Your task to perform on an android device: toggle show notifications on the lock screen Image 0: 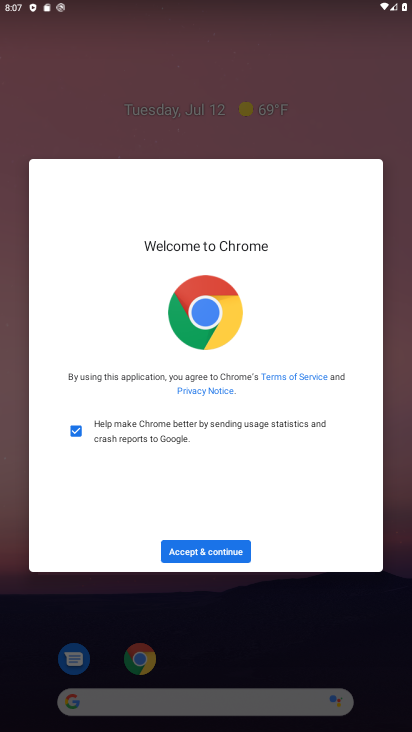
Step 0: press home button
Your task to perform on an android device: toggle show notifications on the lock screen Image 1: 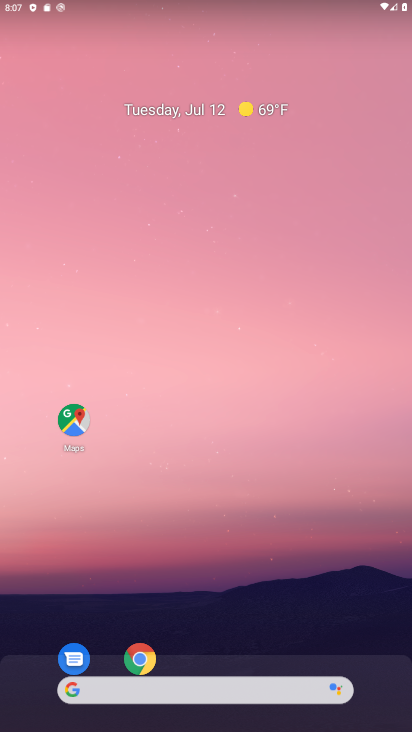
Step 1: drag from (331, 609) to (278, 280)
Your task to perform on an android device: toggle show notifications on the lock screen Image 2: 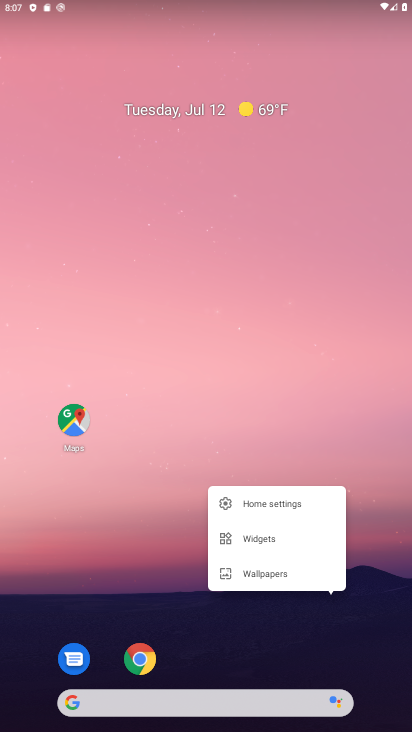
Step 2: drag from (400, 689) to (303, 52)
Your task to perform on an android device: toggle show notifications on the lock screen Image 3: 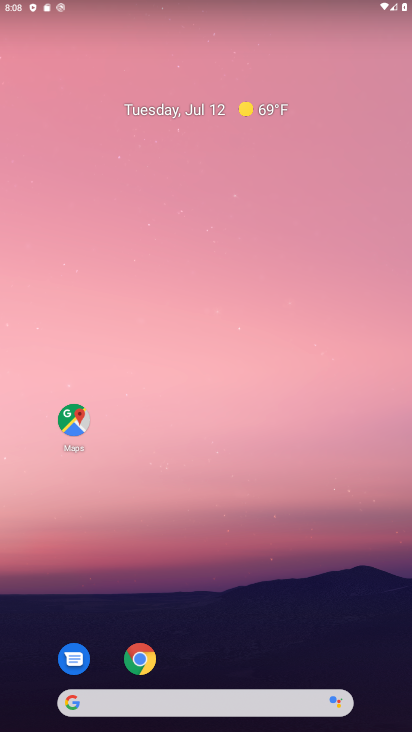
Step 3: drag from (394, 669) to (320, 163)
Your task to perform on an android device: toggle show notifications on the lock screen Image 4: 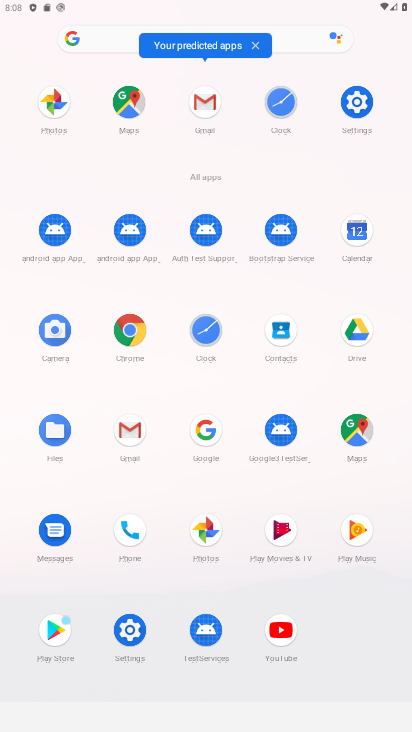
Step 4: click (356, 105)
Your task to perform on an android device: toggle show notifications on the lock screen Image 5: 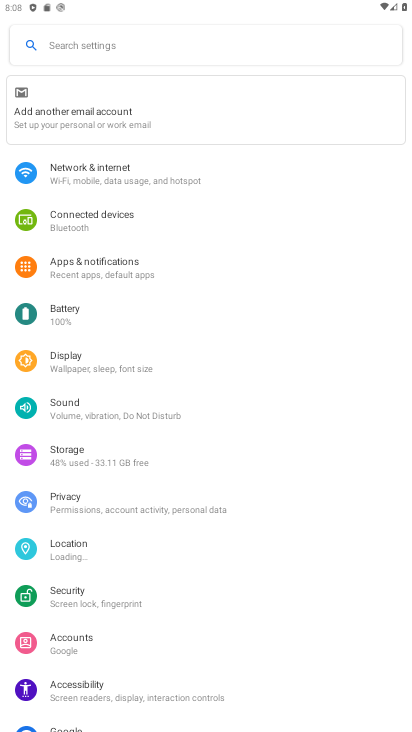
Step 5: click (233, 280)
Your task to perform on an android device: toggle show notifications on the lock screen Image 6: 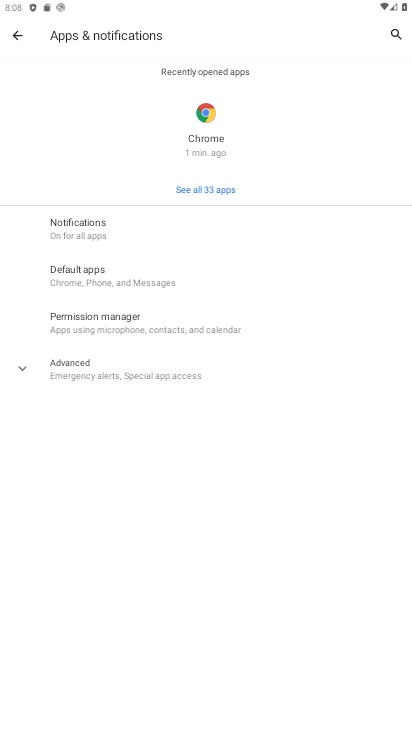
Step 6: click (211, 241)
Your task to perform on an android device: toggle show notifications on the lock screen Image 7: 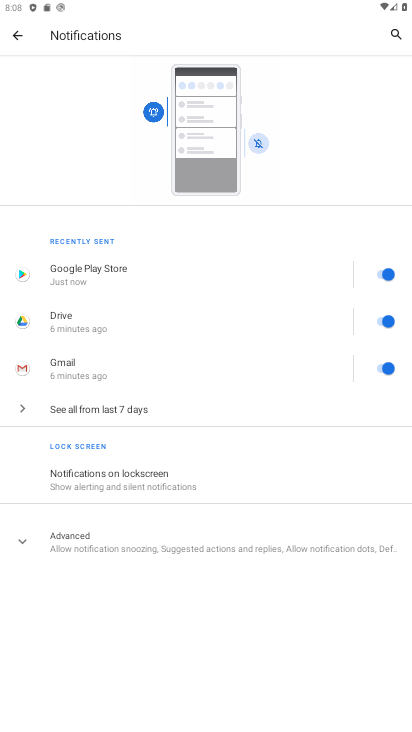
Step 7: click (213, 484)
Your task to perform on an android device: toggle show notifications on the lock screen Image 8: 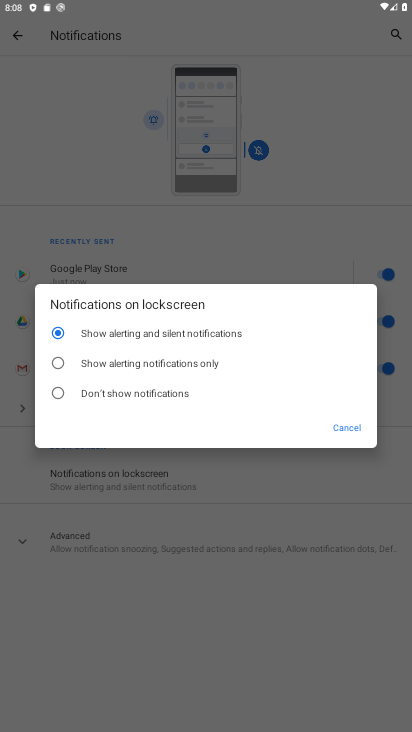
Step 8: click (231, 368)
Your task to perform on an android device: toggle show notifications on the lock screen Image 9: 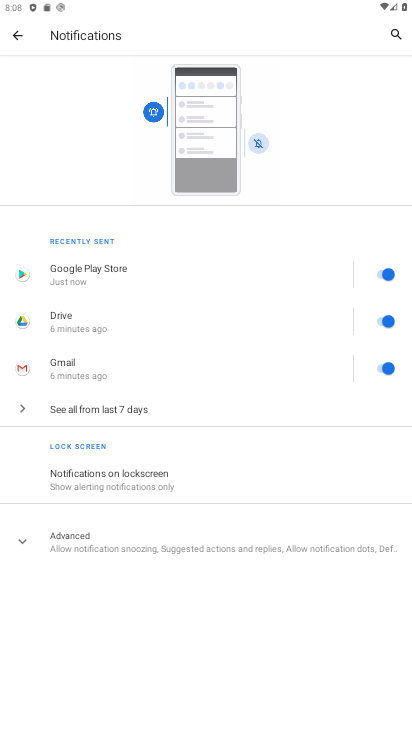
Step 9: task complete